Your task to perform on an android device: read, delete, or share a saved page in the chrome app Image 0: 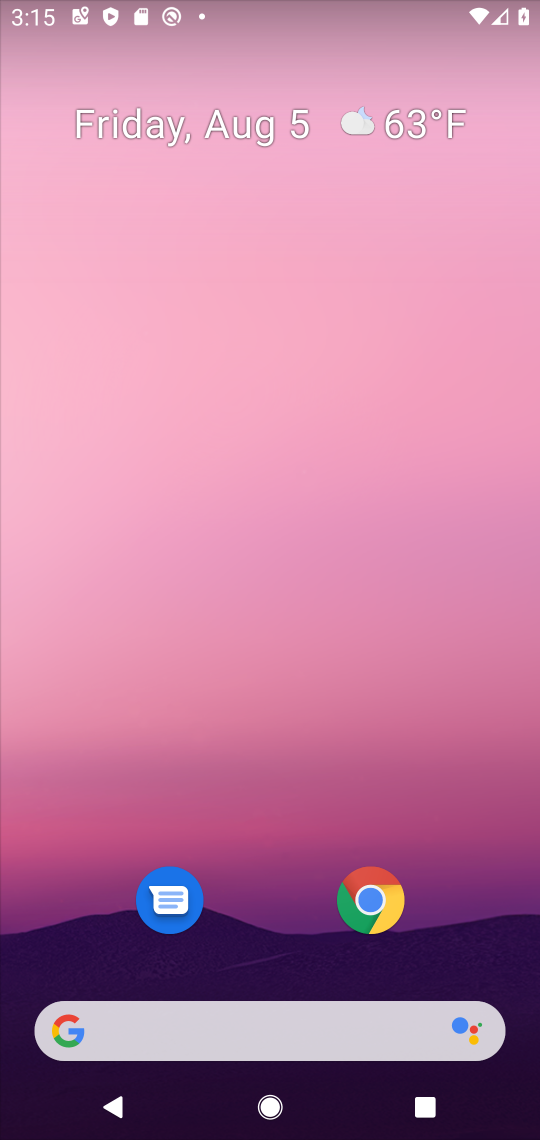
Step 0: click (357, 889)
Your task to perform on an android device: read, delete, or share a saved page in the chrome app Image 1: 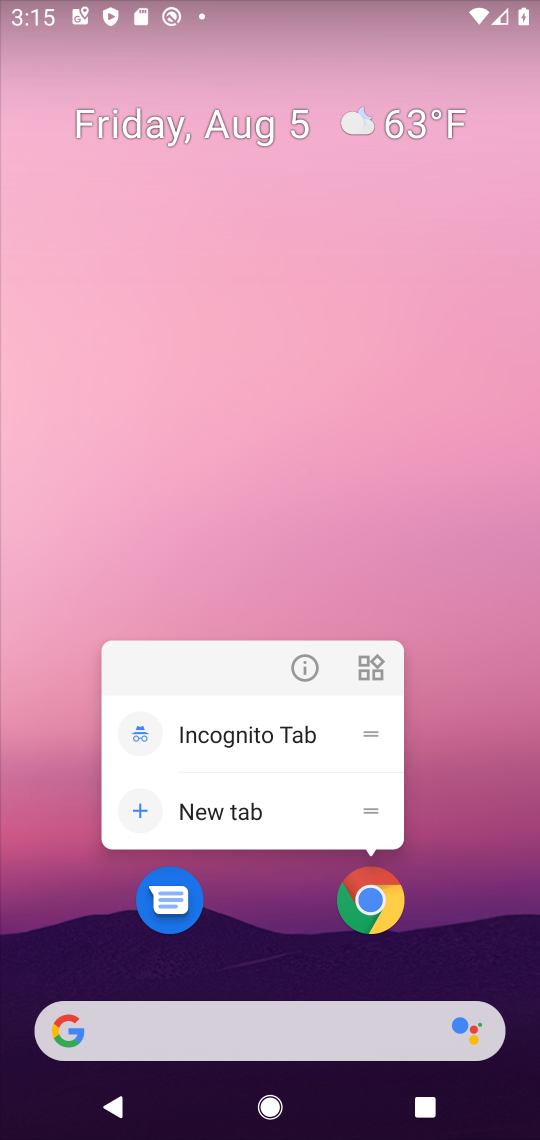
Step 1: click (369, 898)
Your task to perform on an android device: read, delete, or share a saved page in the chrome app Image 2: 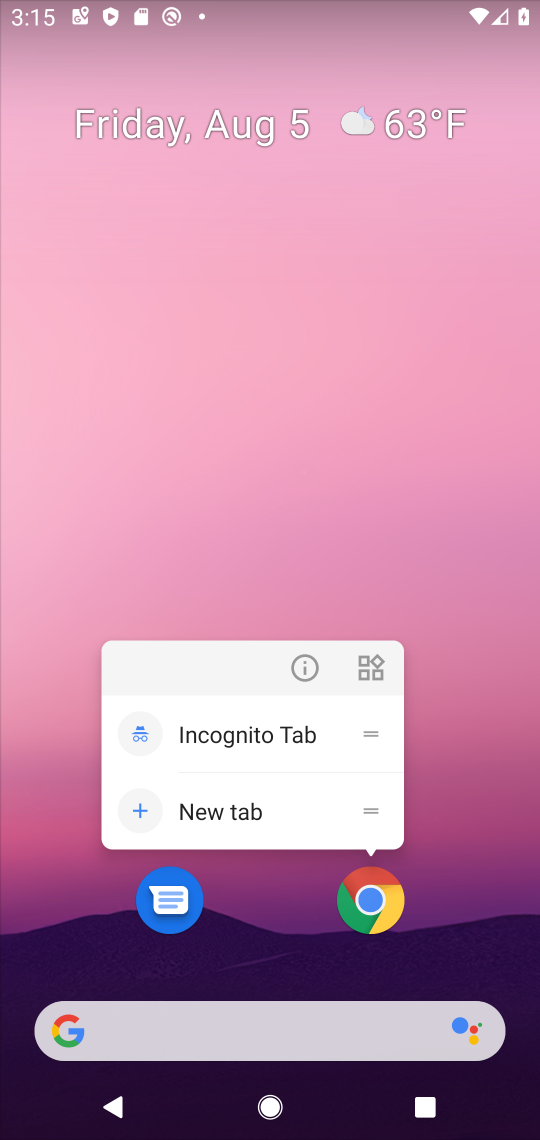
Step 2: click (372, 896)
Your task to perform on an android device: read, delete, or share a saved page in the chrome app Image 3: 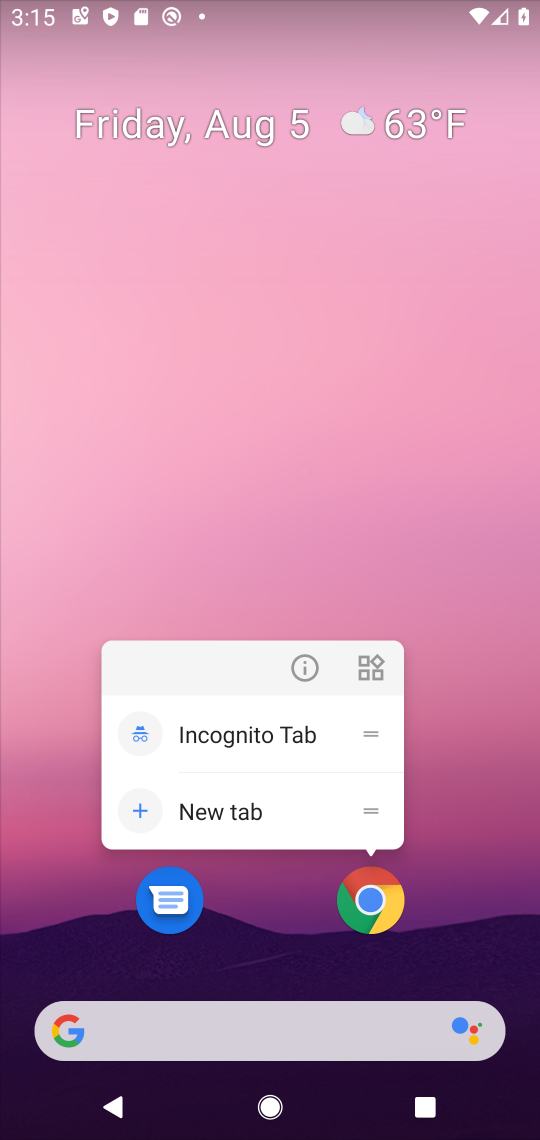
Step 3: click (364, 908)
Your task to perform on an android device: read, delete, or share a saved page in the chrome app Image 4: 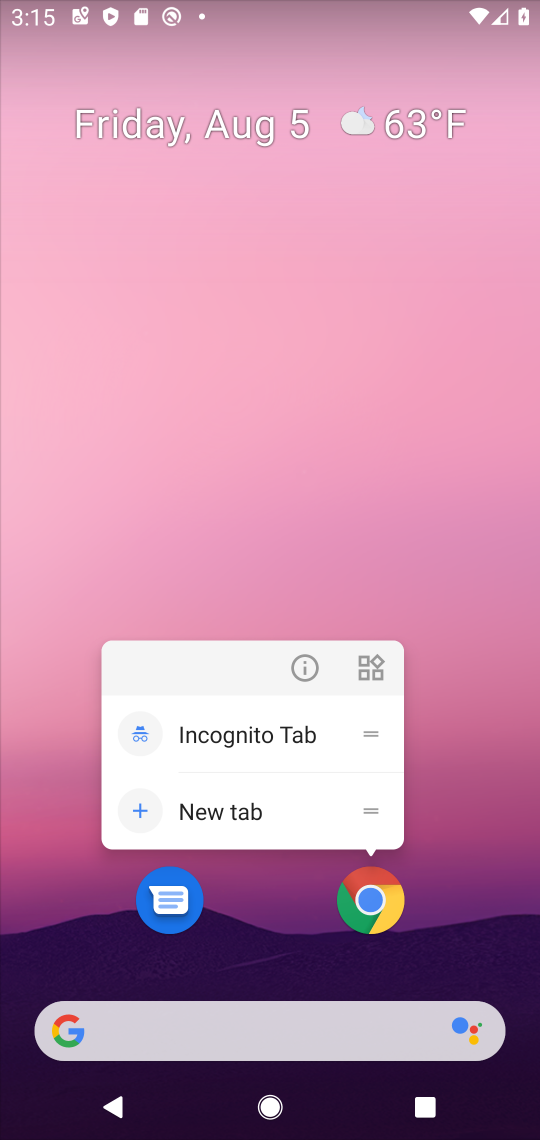
Step 4: click (382, 896)
Your task to perform on an android device: read, delete, or share a saved page in the chrome app Image 5: 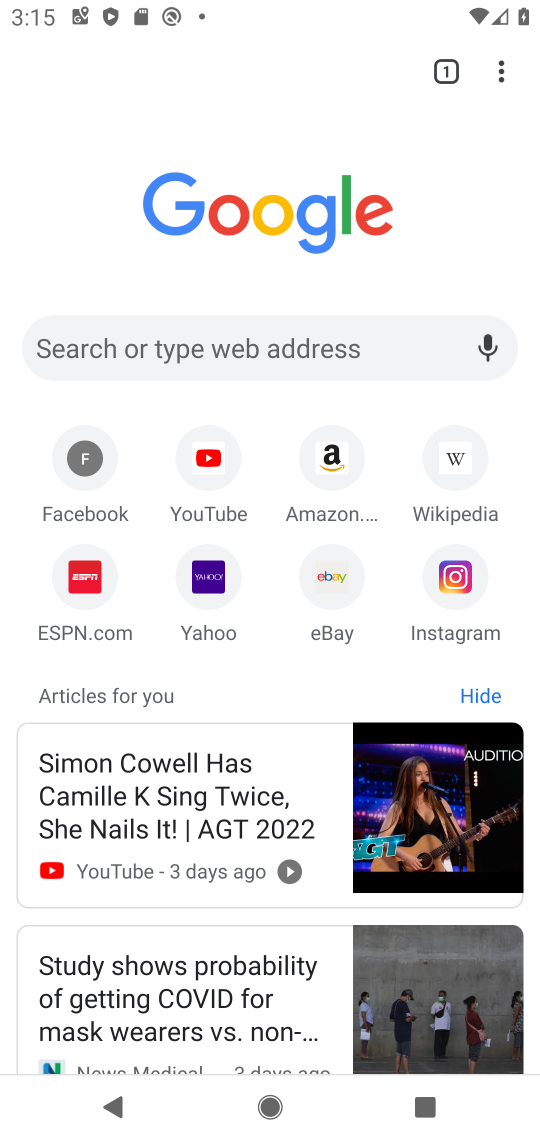
Step 5: drag from (501, 74) to (290, 473)
Your task to perform on an android device: read, delete, or share a saved page in the chrome app Image 6: 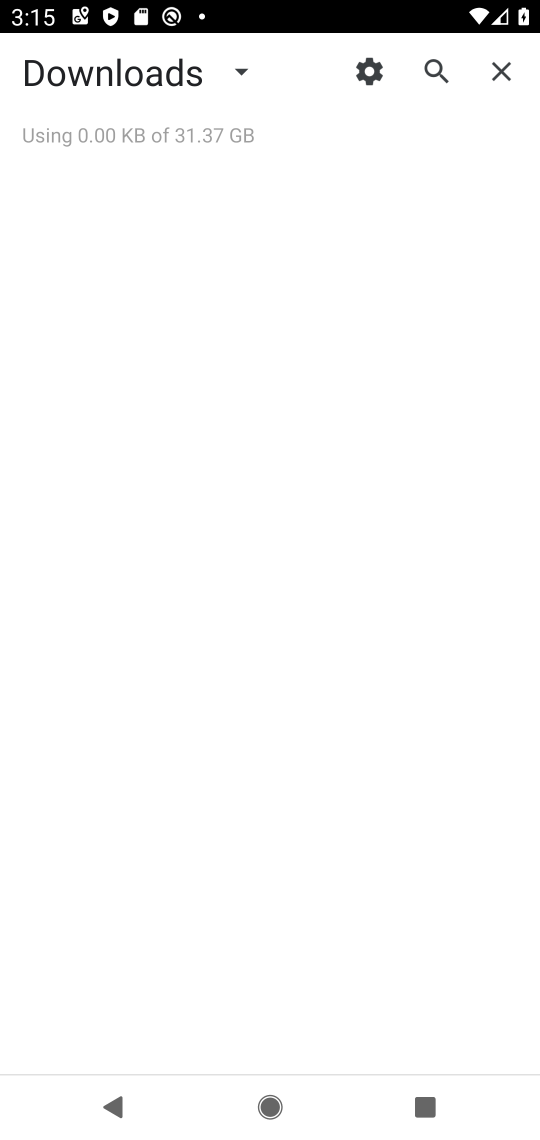
Step 6: click (241, 76)
Your task to perform on an android device: read, delete, or share a saved page in the chrome app Image 7: 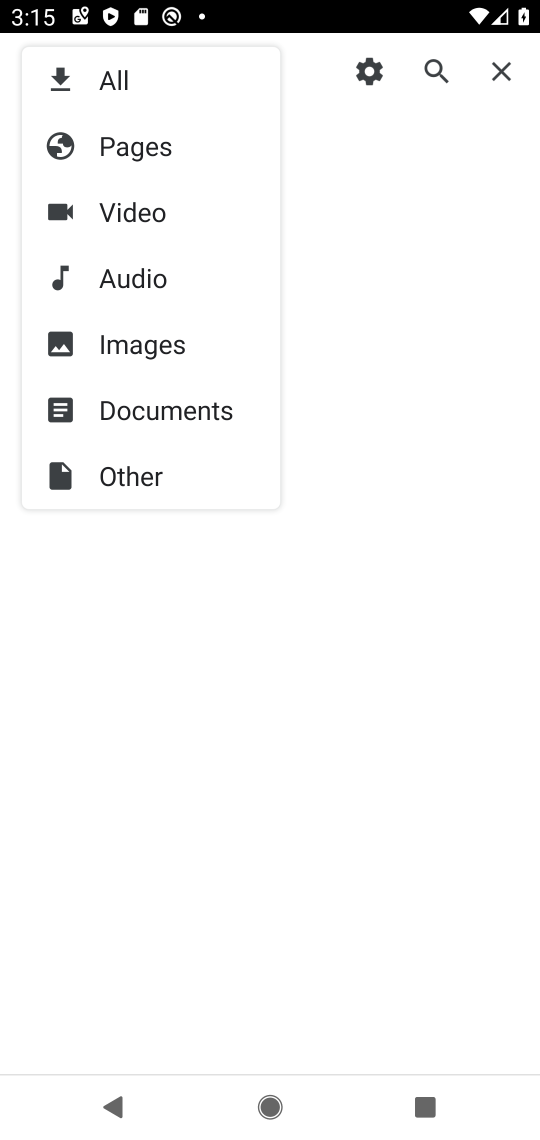
Step 7: click (128, 148)
Your task to perform on an android device: read, delete, or share a saved page in the chrome app Image 8: 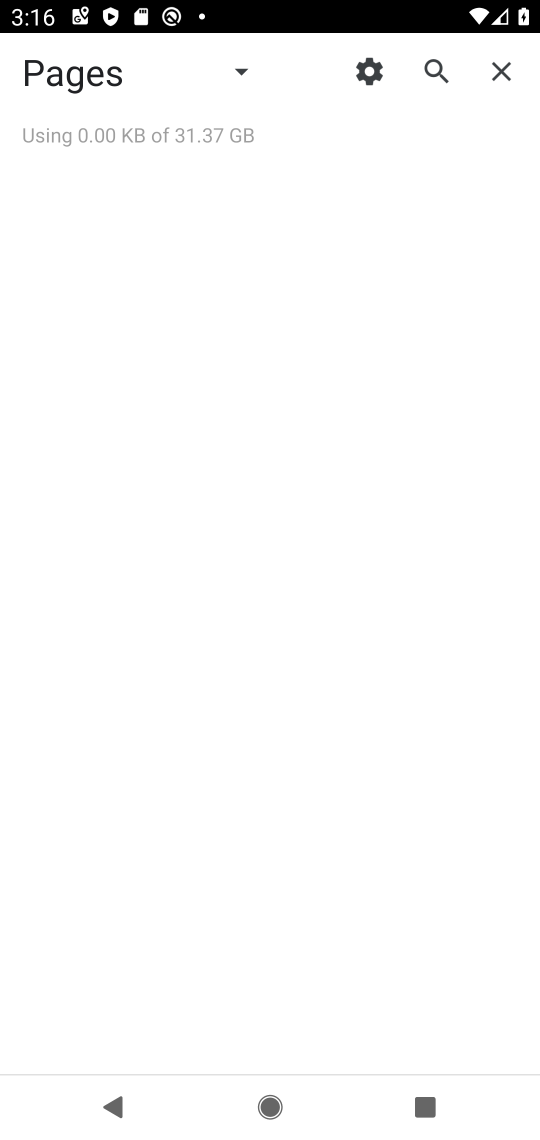
Step 8: task complete